Your task to perform on an android device: Search for a 3D printer on aliexpress. Image 0: 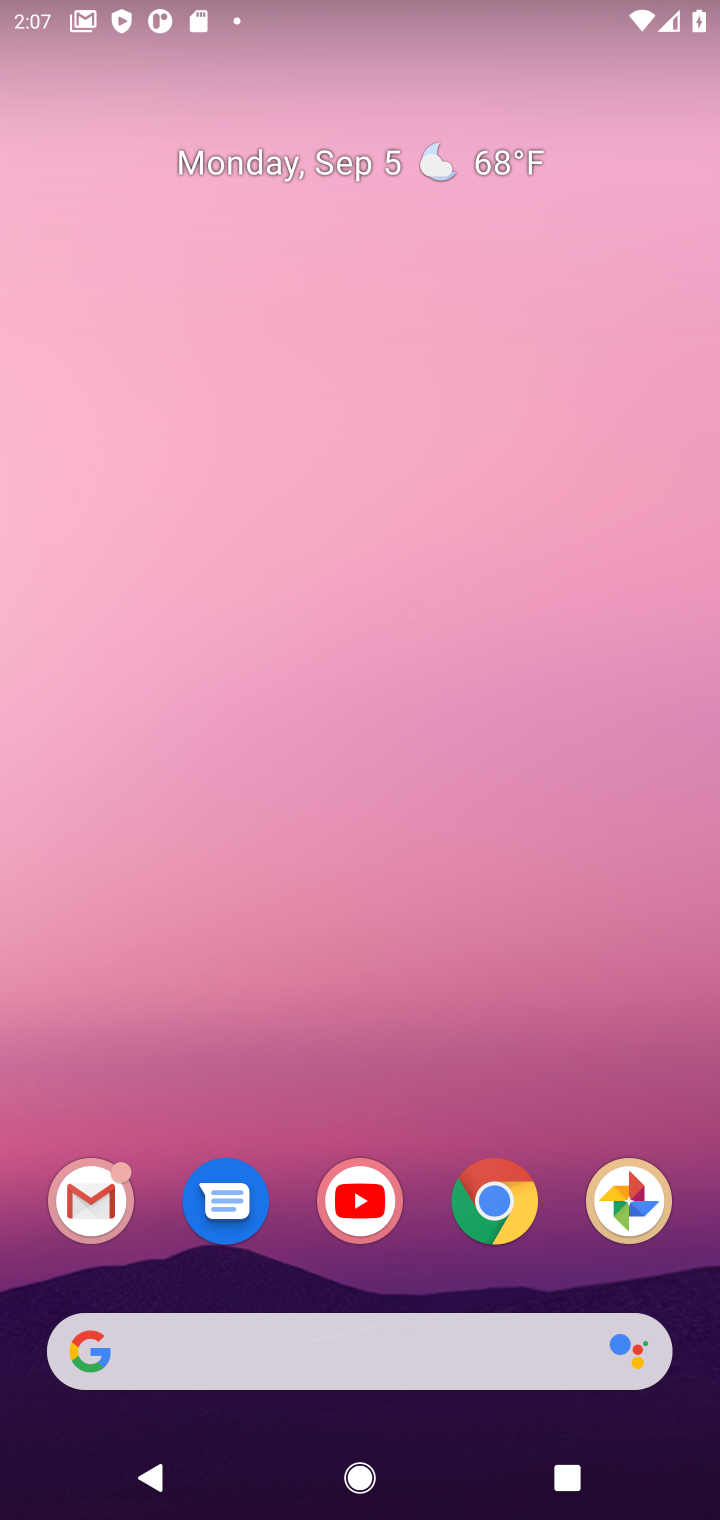
Step 0: click (485, 1199)
Your task to perform on an android device: Search for a 3D printer on aliexpress. Image 1: 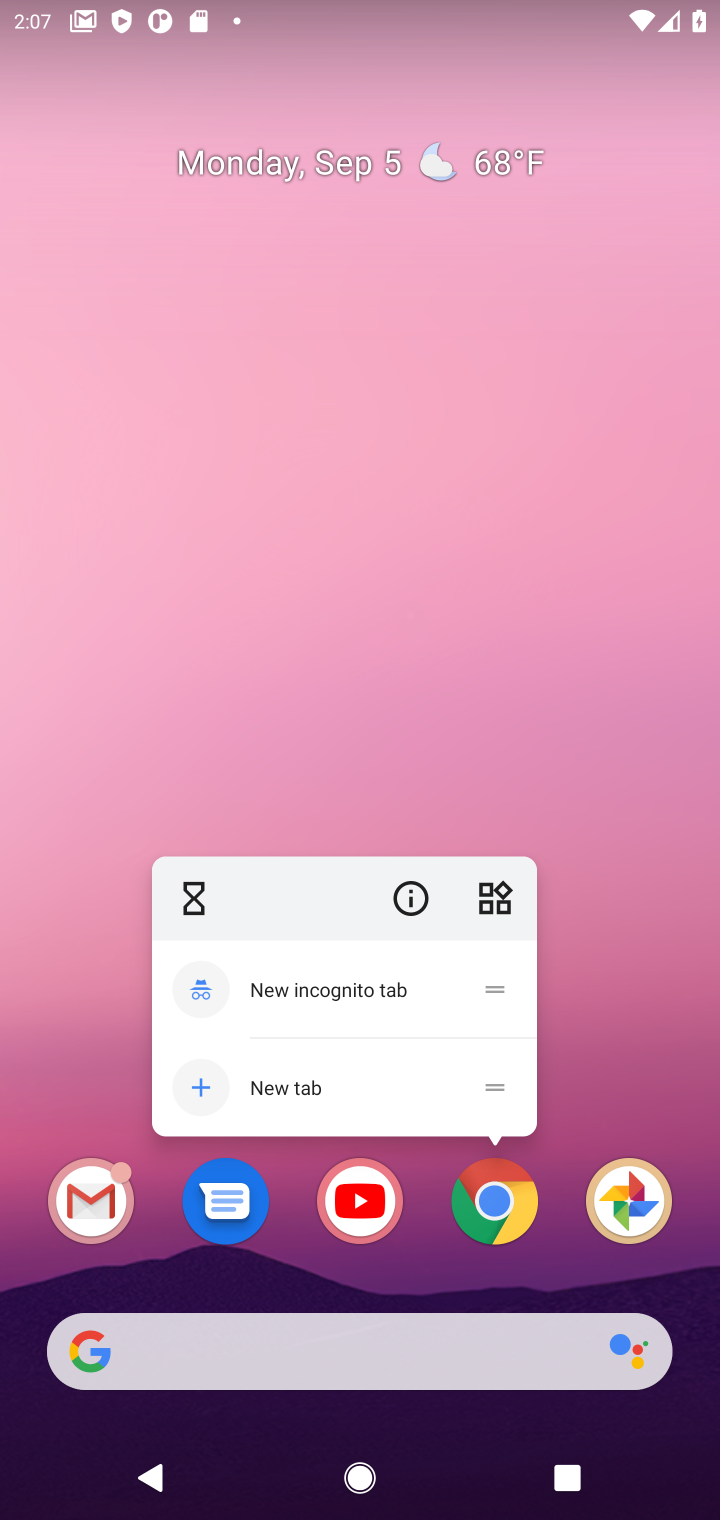
Step 1: click (485, 1202)
Your task to perform on an android device: Search for a 3D printer on aliexpress. Image 2: 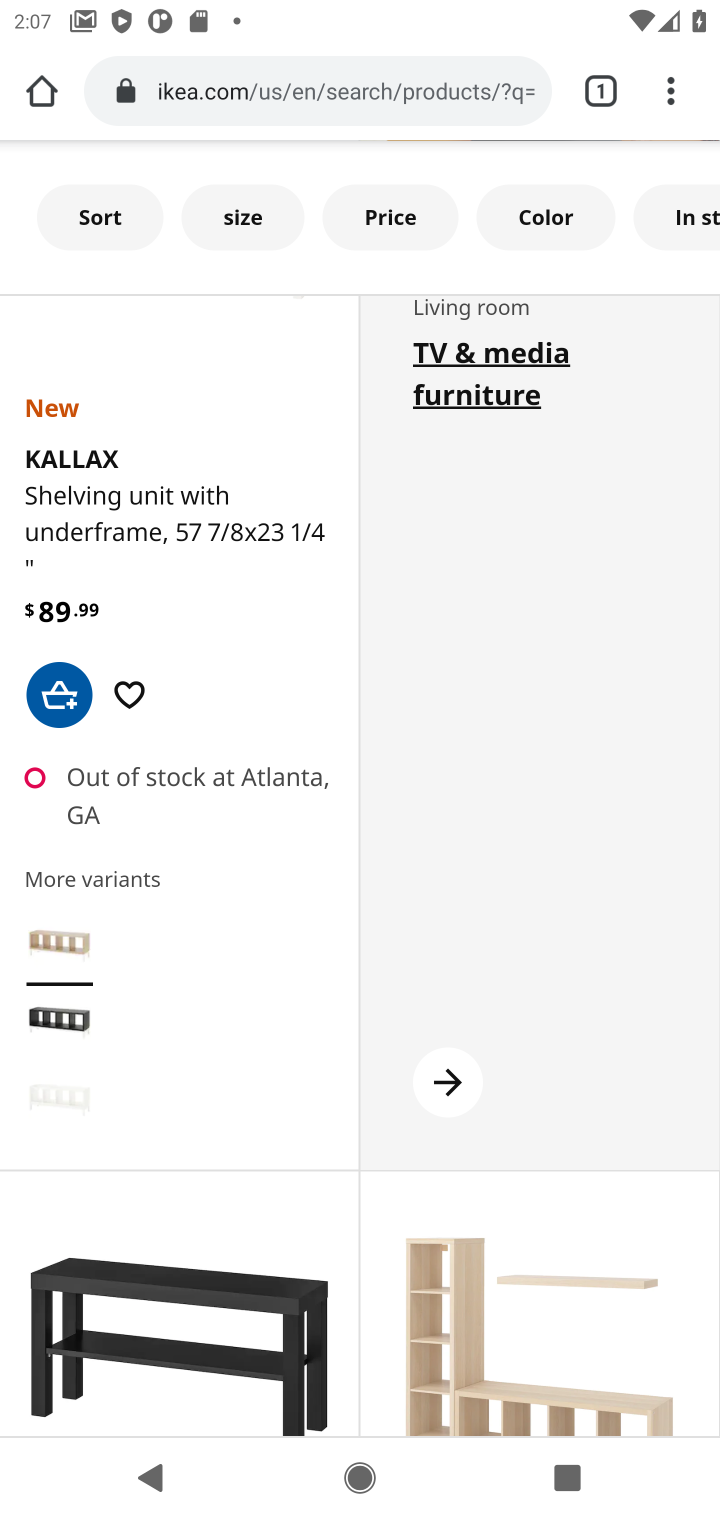
Step 2: click (419, 85)
Your task to perform on an android device: Search for a 3D printer on aliexpress. Image 3: 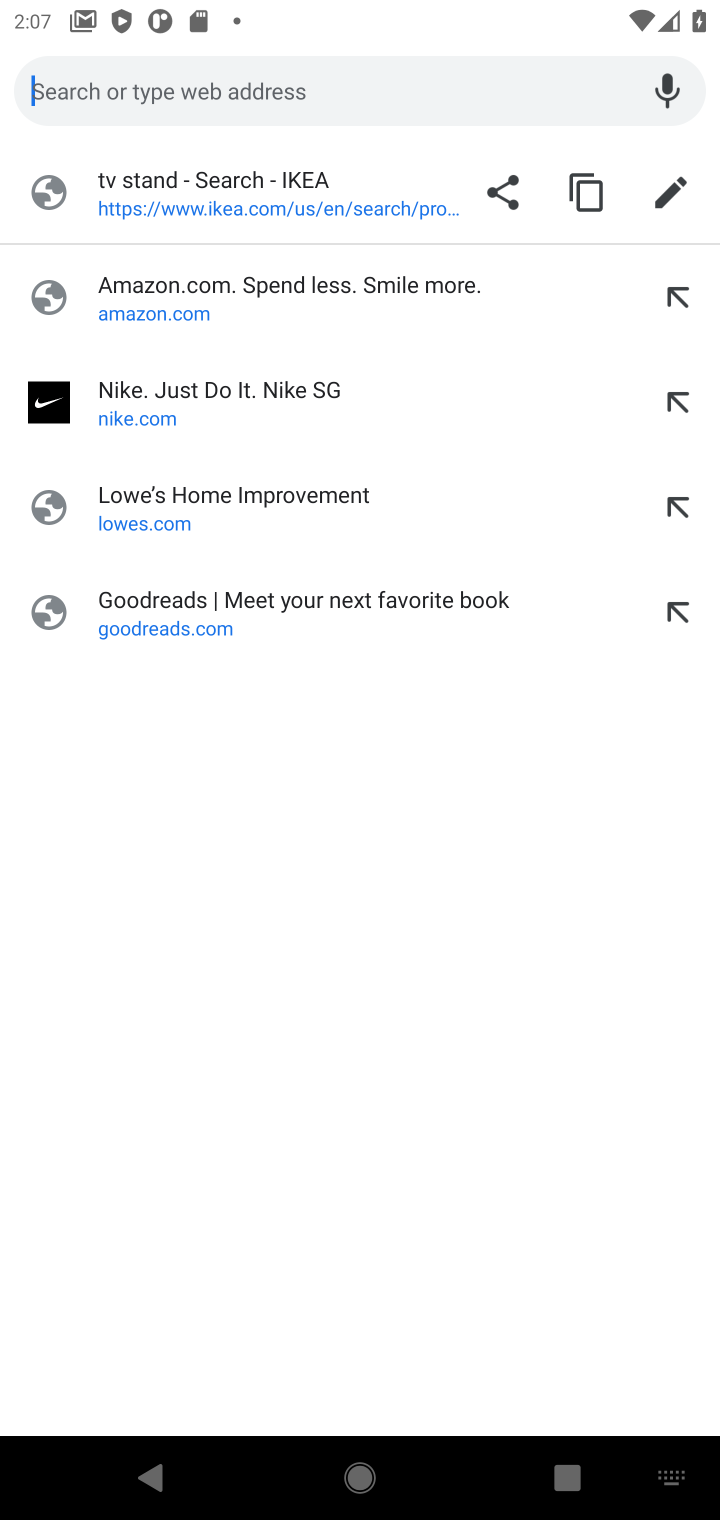
Step 3: click (229, 85)
Your task to perform on an android device: Search for a 3D printer on aliexpress. Image 4: 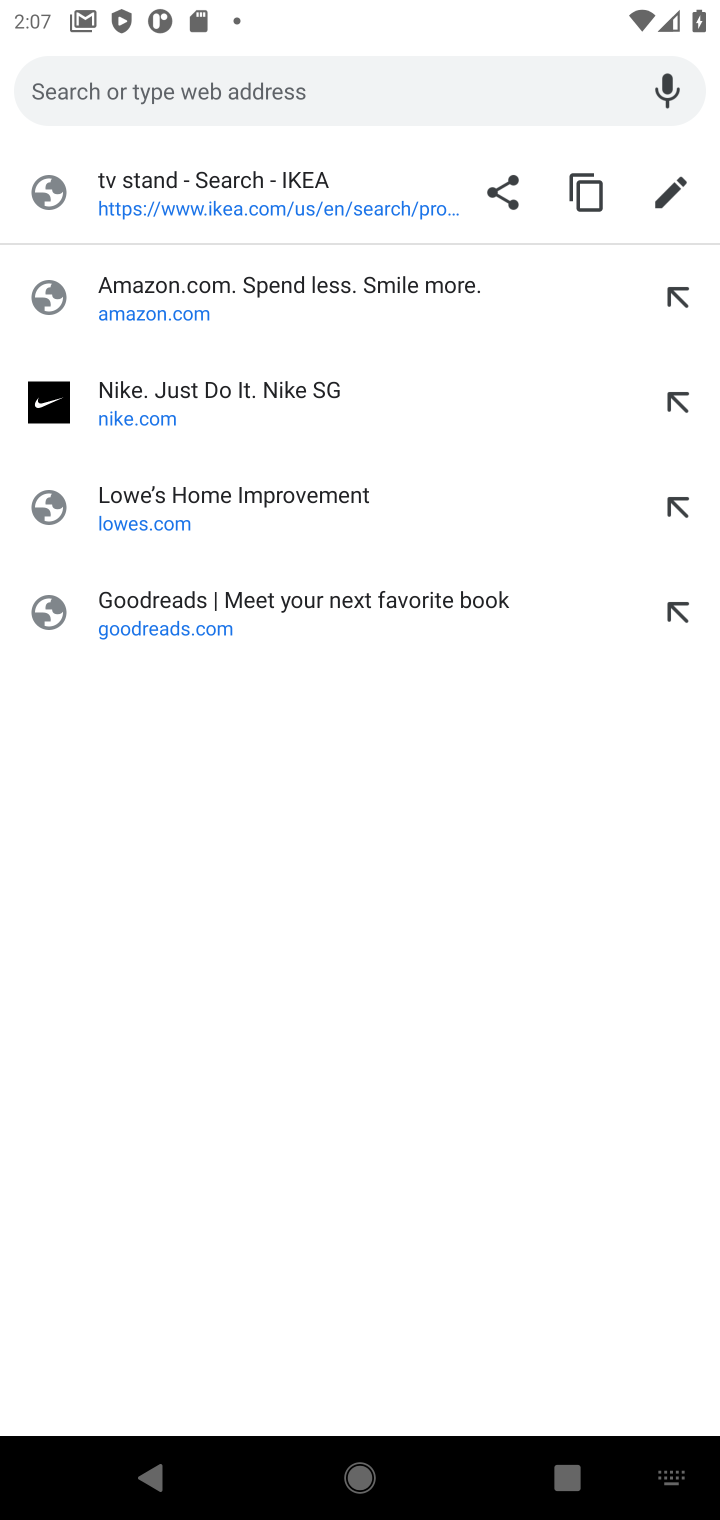
Step 4: press enter
Your task to perform on an android device: Search for a 3D printer on aliexpress. Image 5: 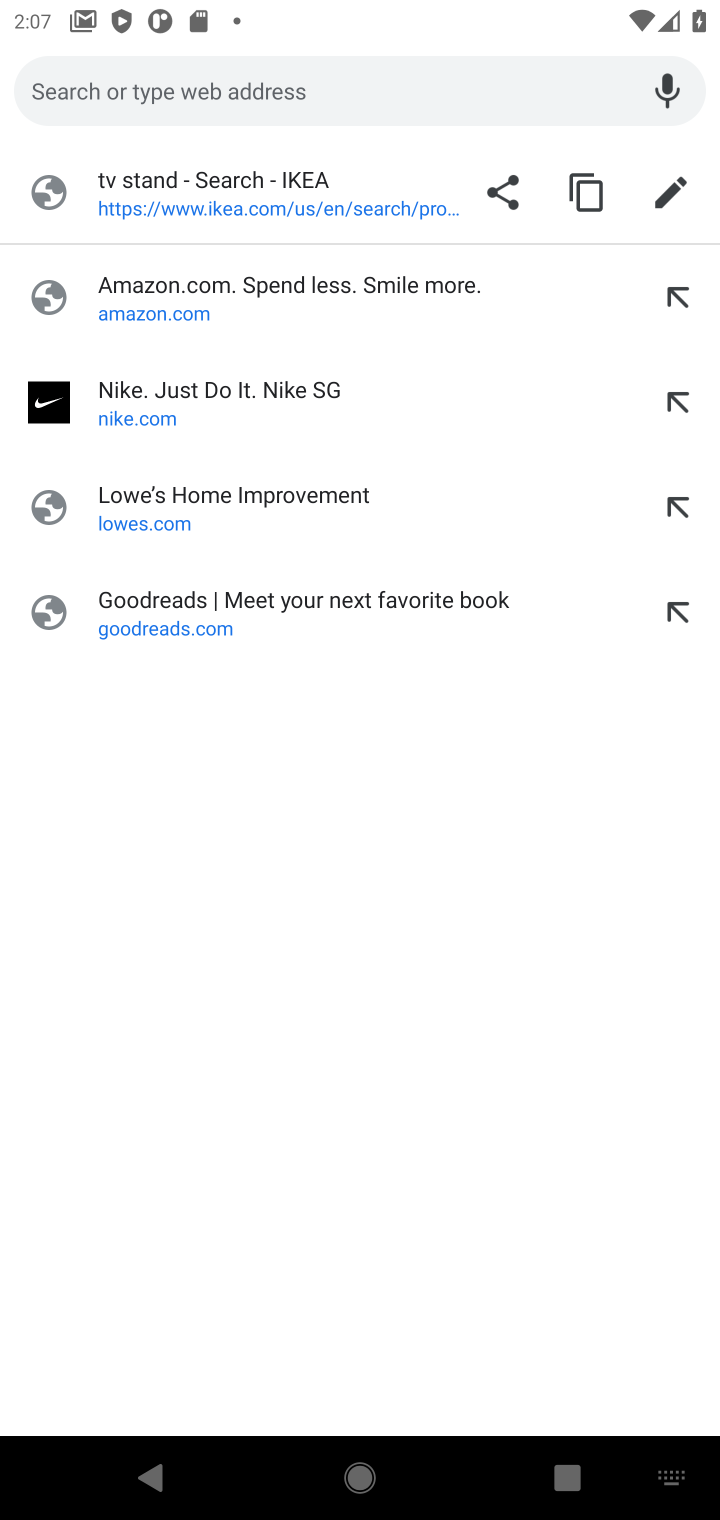
Step 5: type "aliexpress"
Your task to perform on an android device: Search for a 3D printer on aliexpress. Image 6: 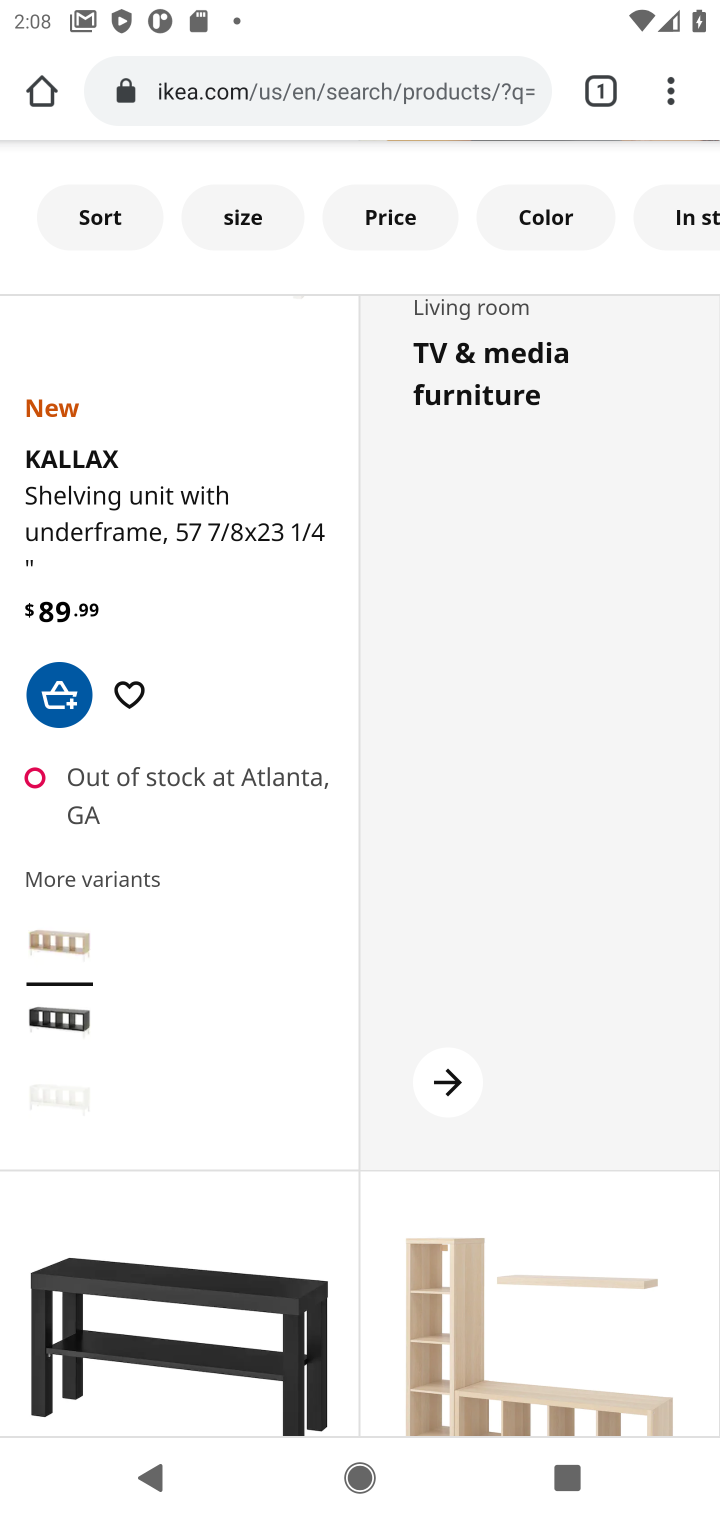
Step 6: click (403, 94)
Your task to perform on an android device: Search for a 3D printer on aliexpress. Image 7: 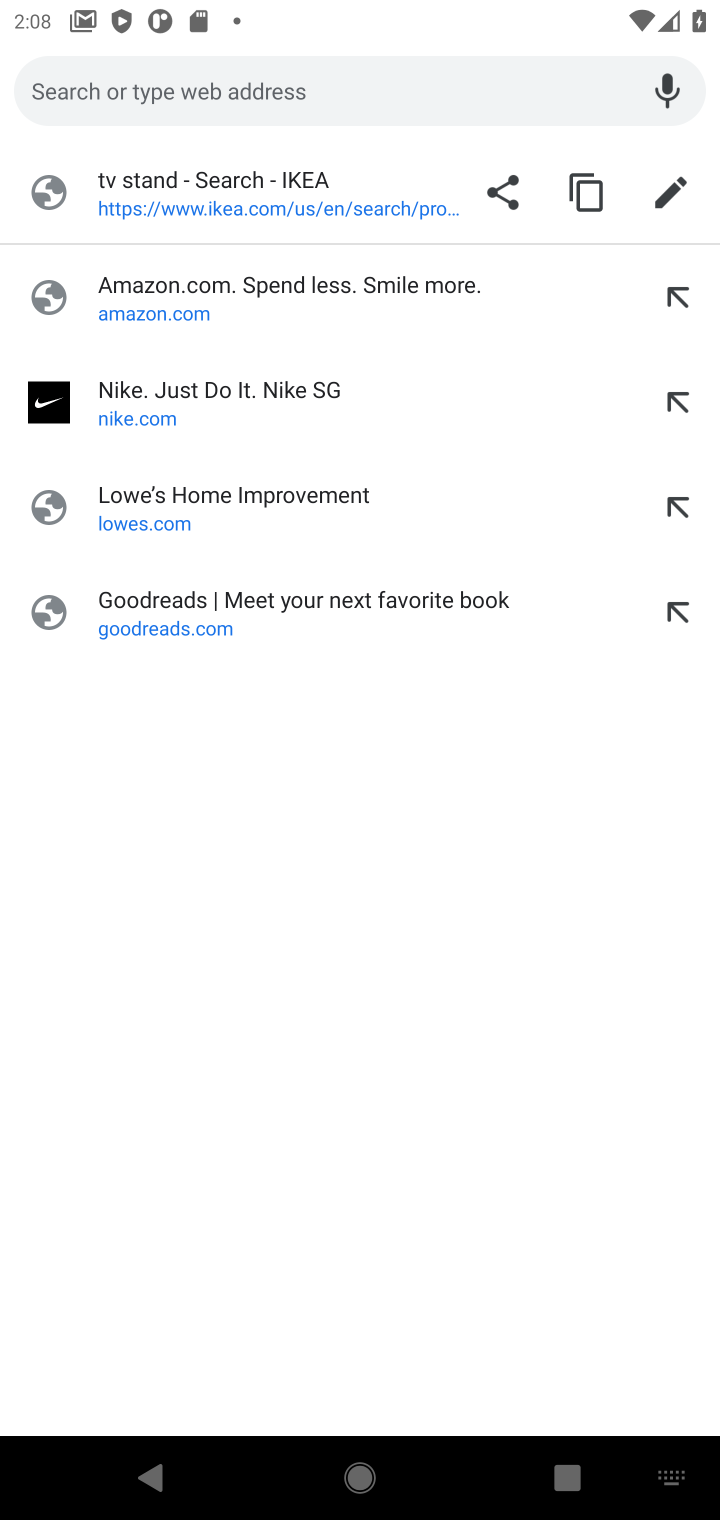
Step 7: type "aliexpress"
Your task to perform on an android device: Search for a 3D printer on aliexpress. Image 8: 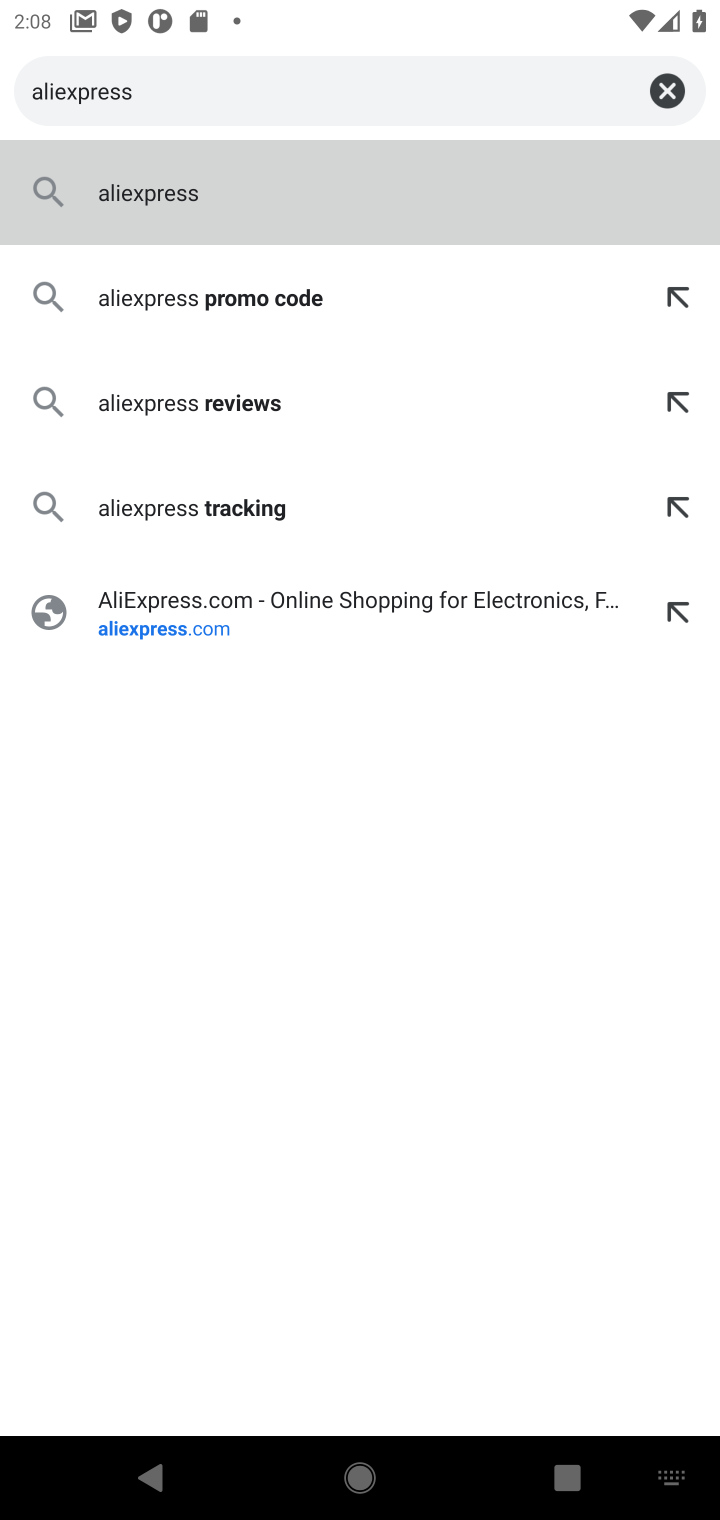
Step 8: press enter
Your task to perform on an android device: Search for a 3D printer on aliexpress. Image 9: 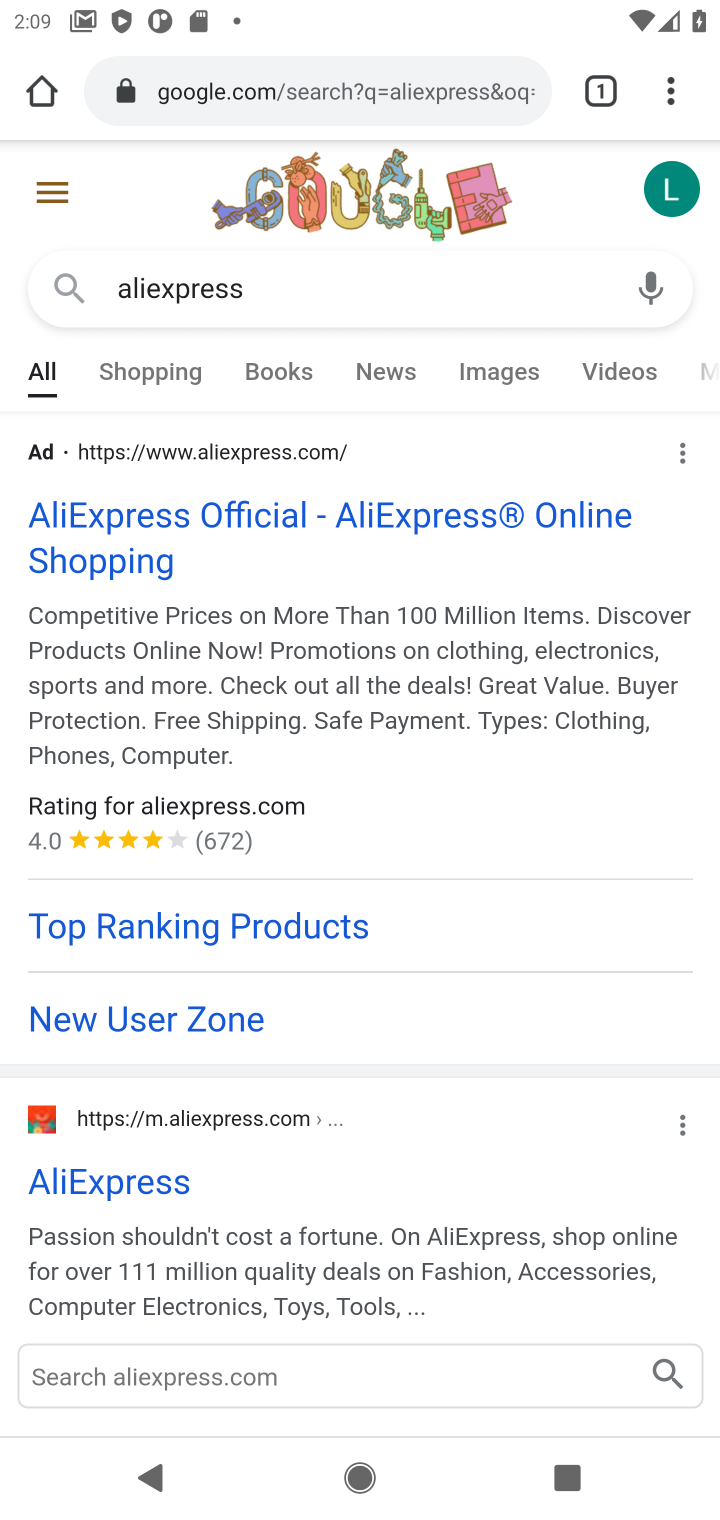
Step 9: click (139, 1187)
Your task to perform on an android device: Search for a 3D printer on aliexpress. Image 10: 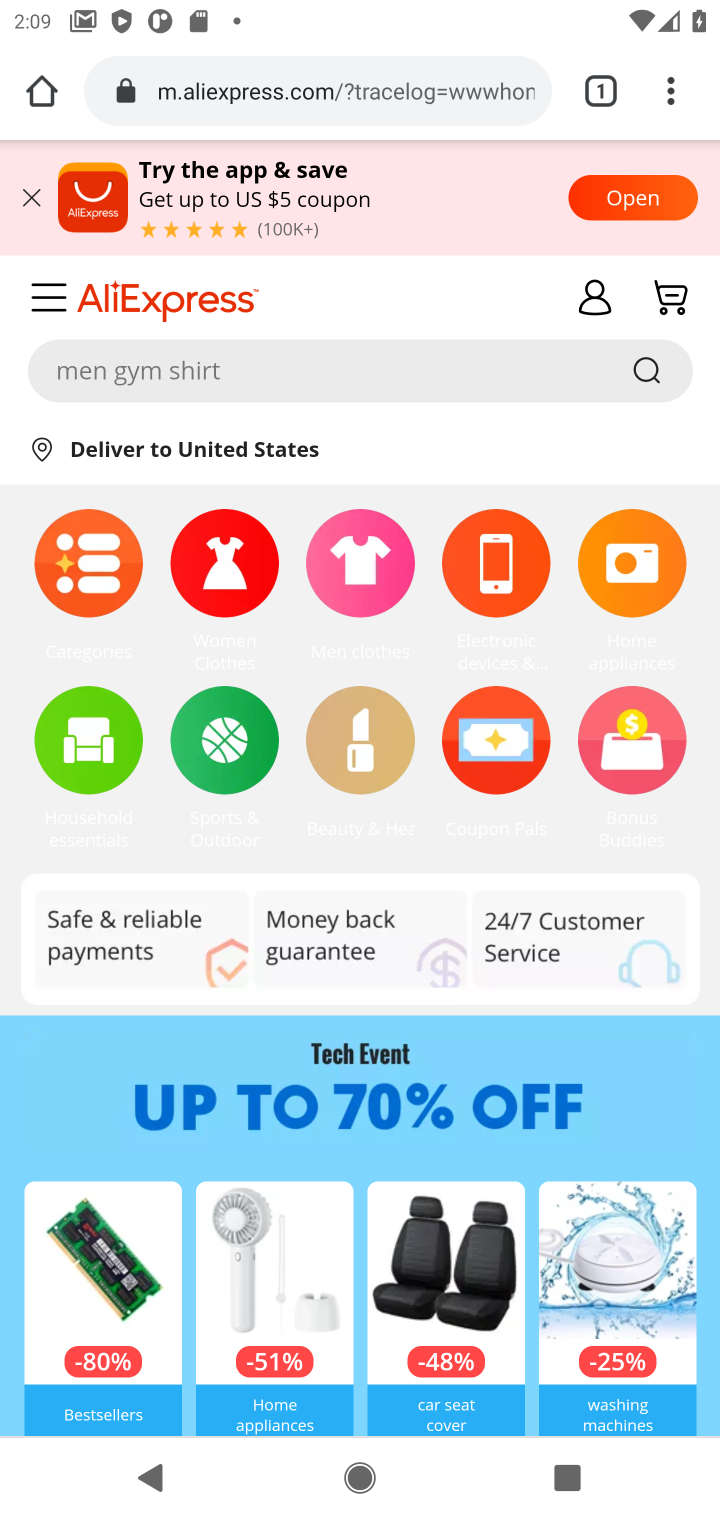
Step 10: click (184, 369)
Your task to perform on an android device: Search for a 3D printer on aliexpress. Image 11: 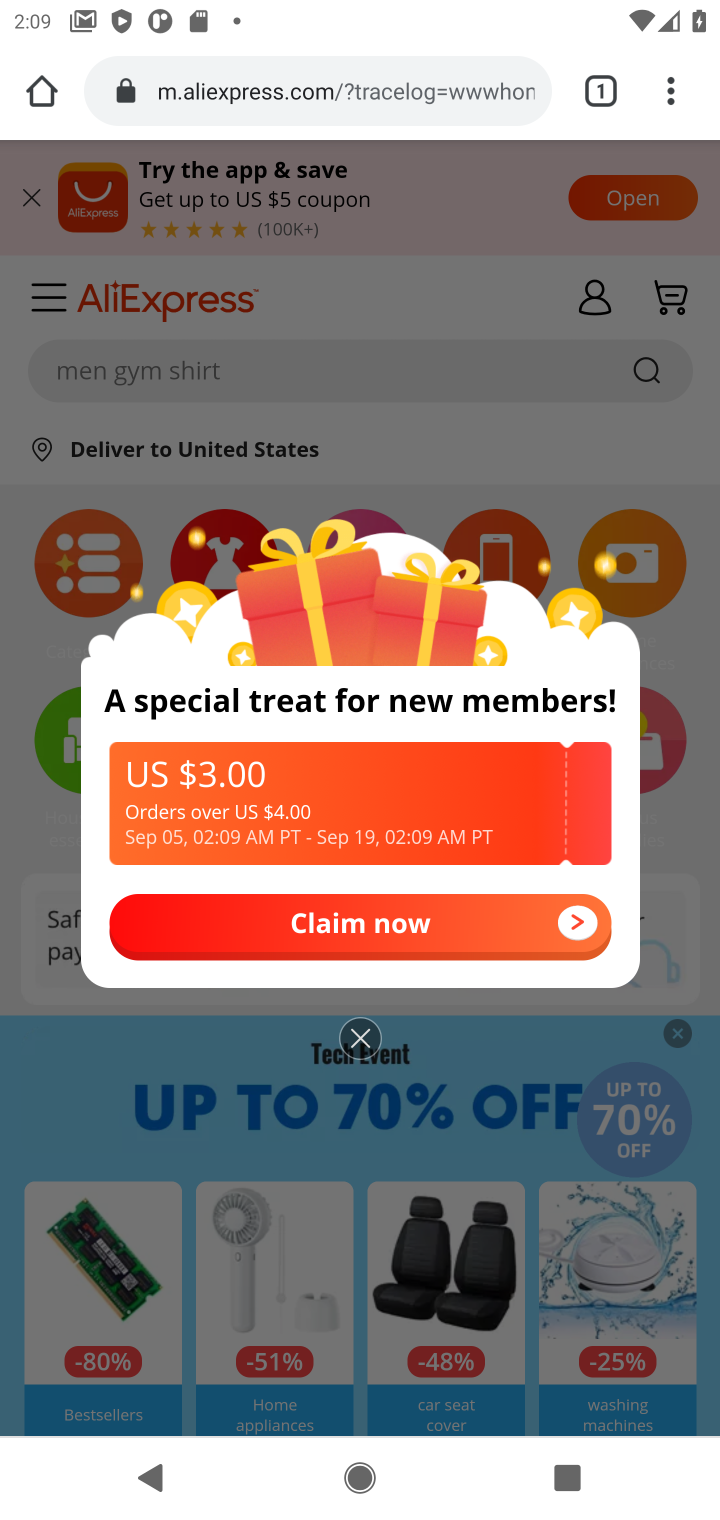
Step 11: click (358, 1046)
Your task to perform on an android device: Search for a 3D printer on aliexpress. Image 12: 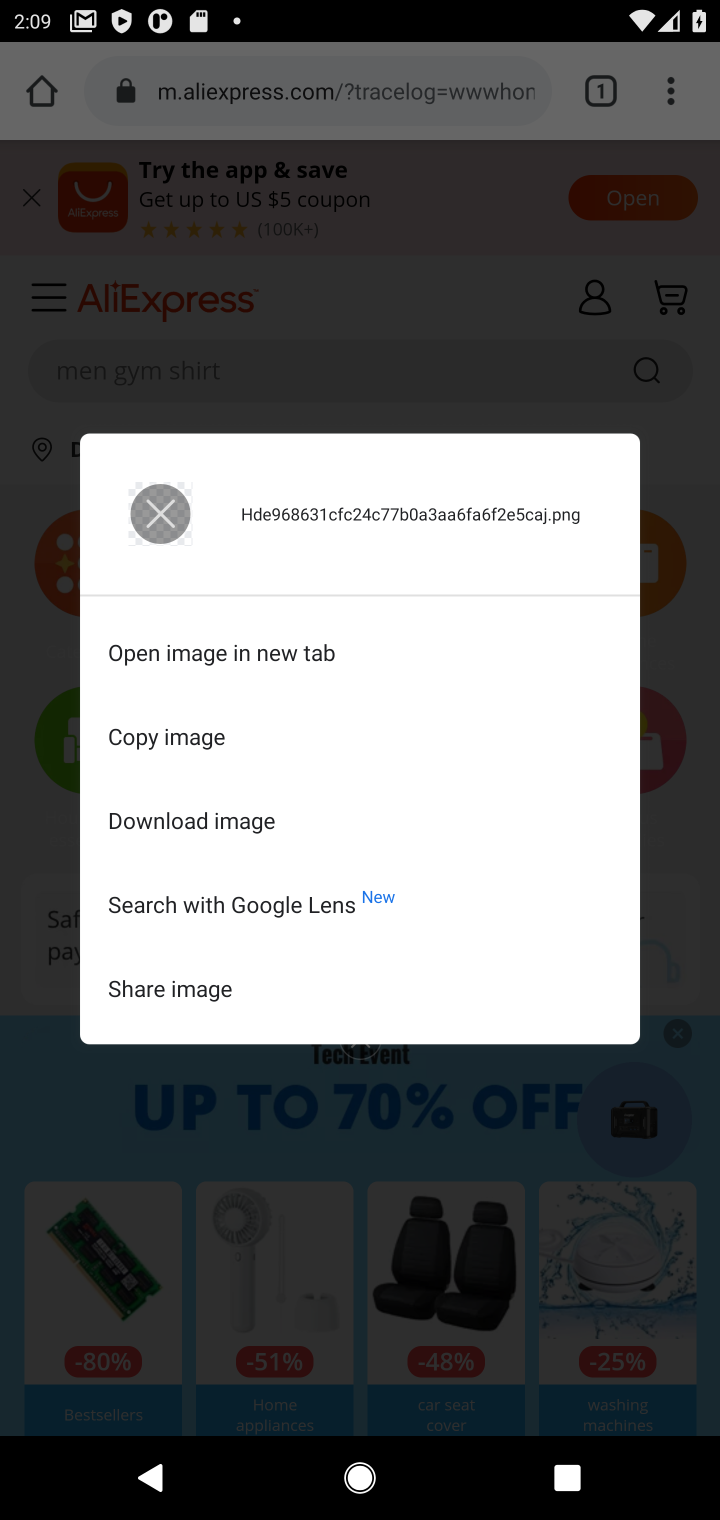
Step 12: click (595, 1126)
Your task to perform on an android device: Search for a 3D printer on aliexpress. Image 13: 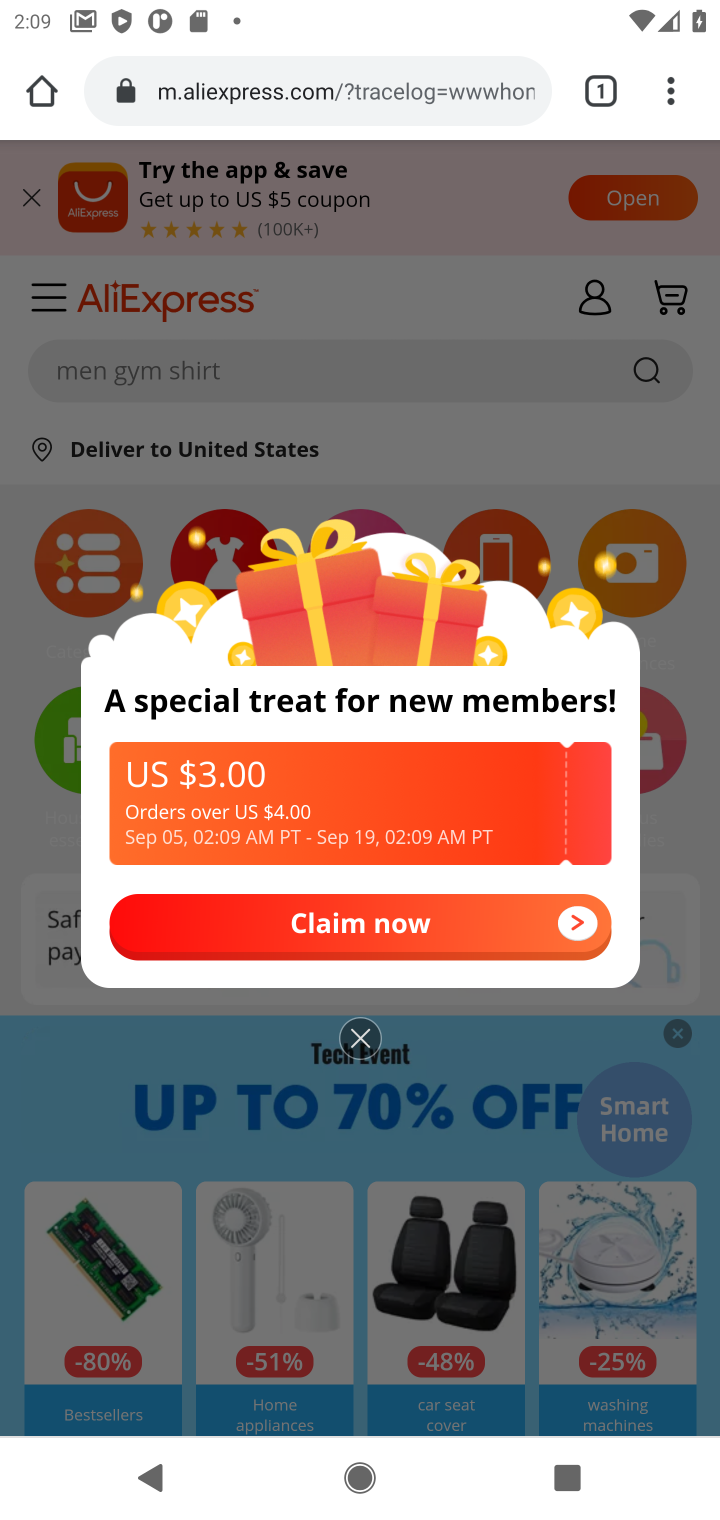
Step 13: click (362, 1041)
Your task to perform on an android device: Search for a 3D printer on aliexpress. Image 14: 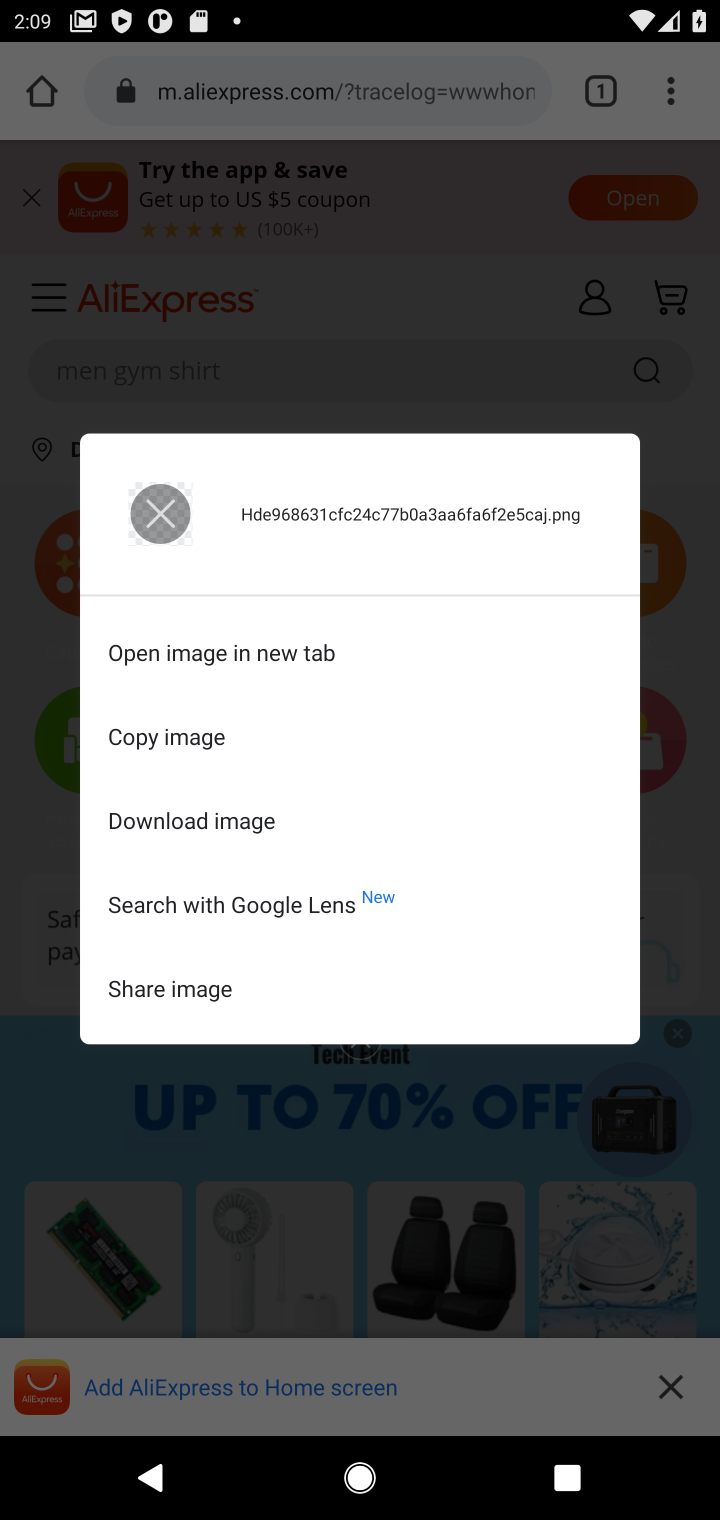
Step 14: click (684, 571)
Your task to perform on an android device: Search for a 3D printer on aliexpress. Image 15: 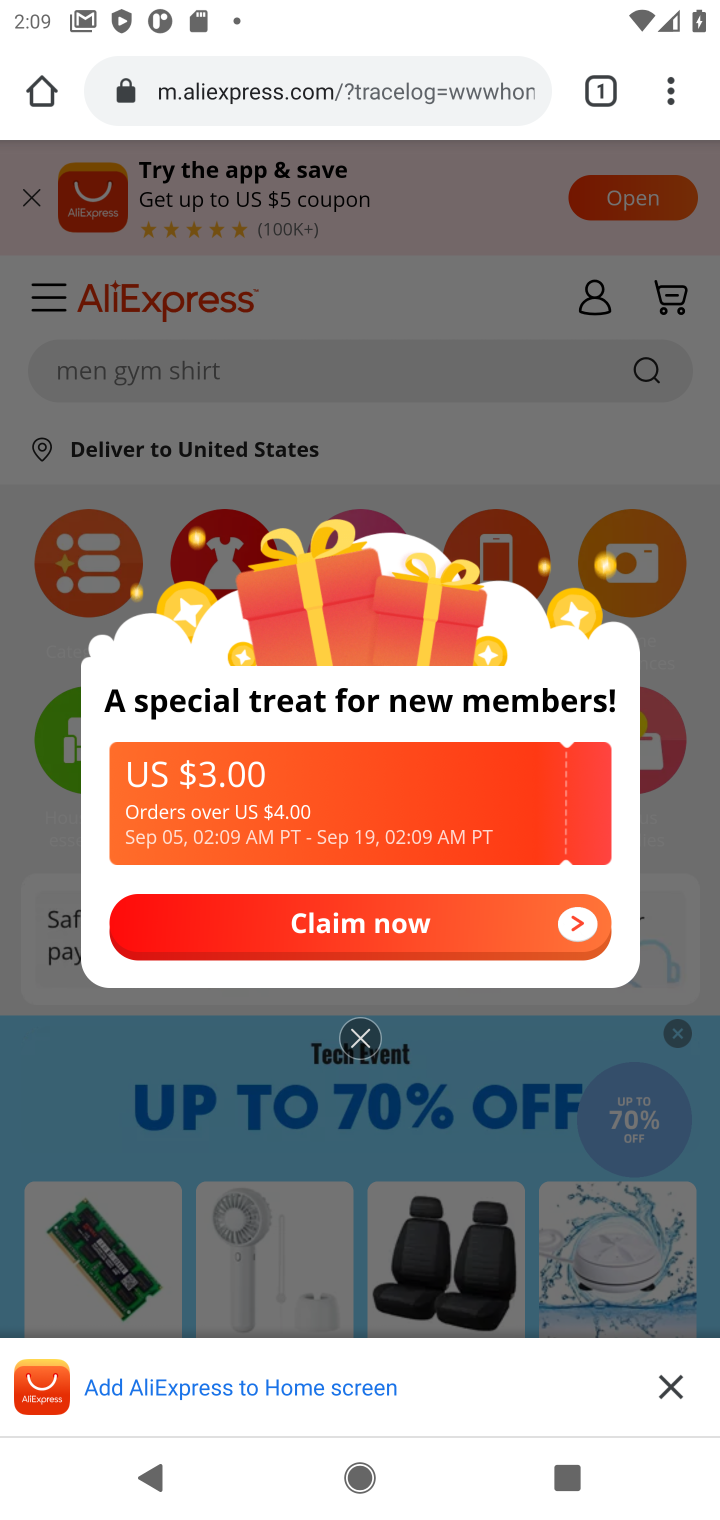
Step 15: click (358, 1039)
Your task to perform on an android device: Search for a 3D printer on aliexpress. Image 16: 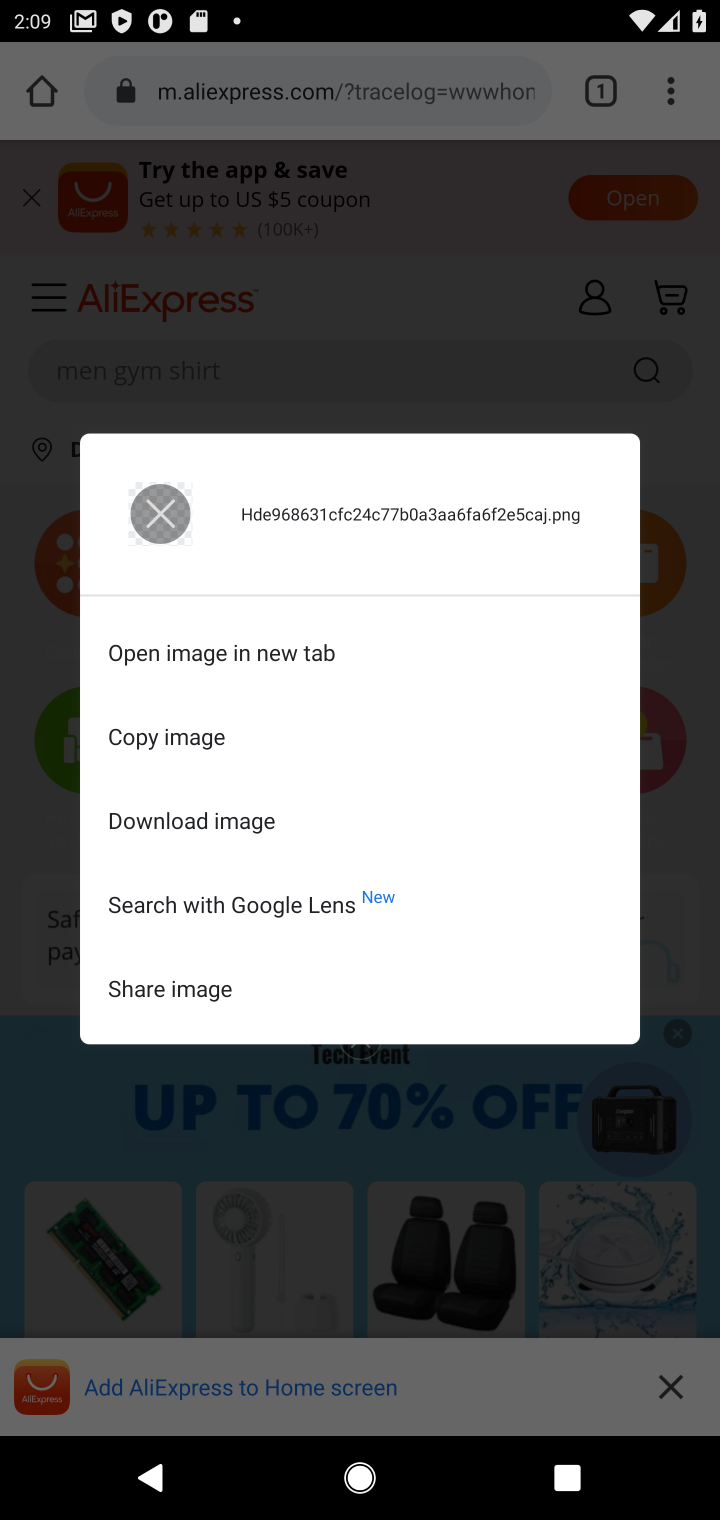
Step 16: click (461, 1119)
Your task to perform on an android device: Search for a 3D printer on aliexpress. Image 17: 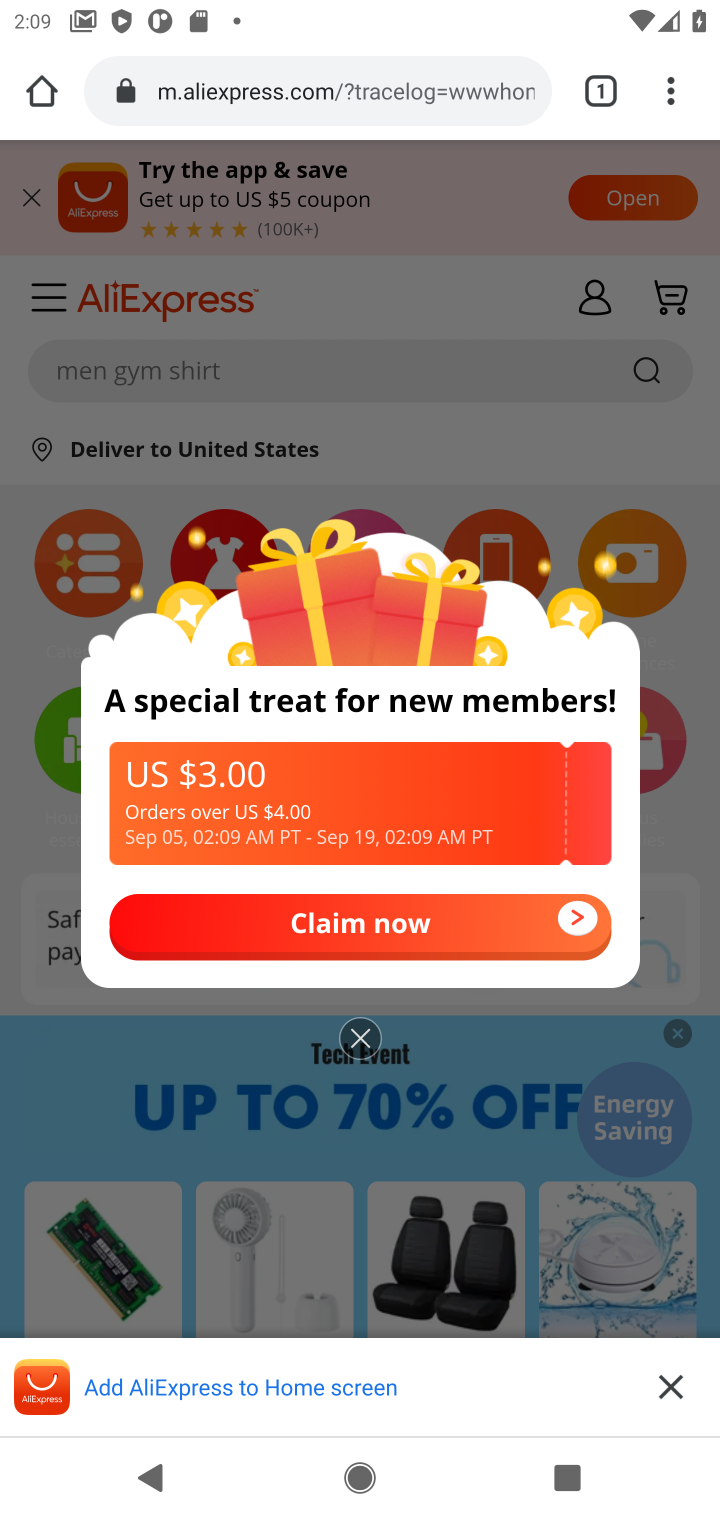
Step 17: click (354, 1043)
Your task to perform on an android device: Search for a 3D printer on aliexpress. Image 18: 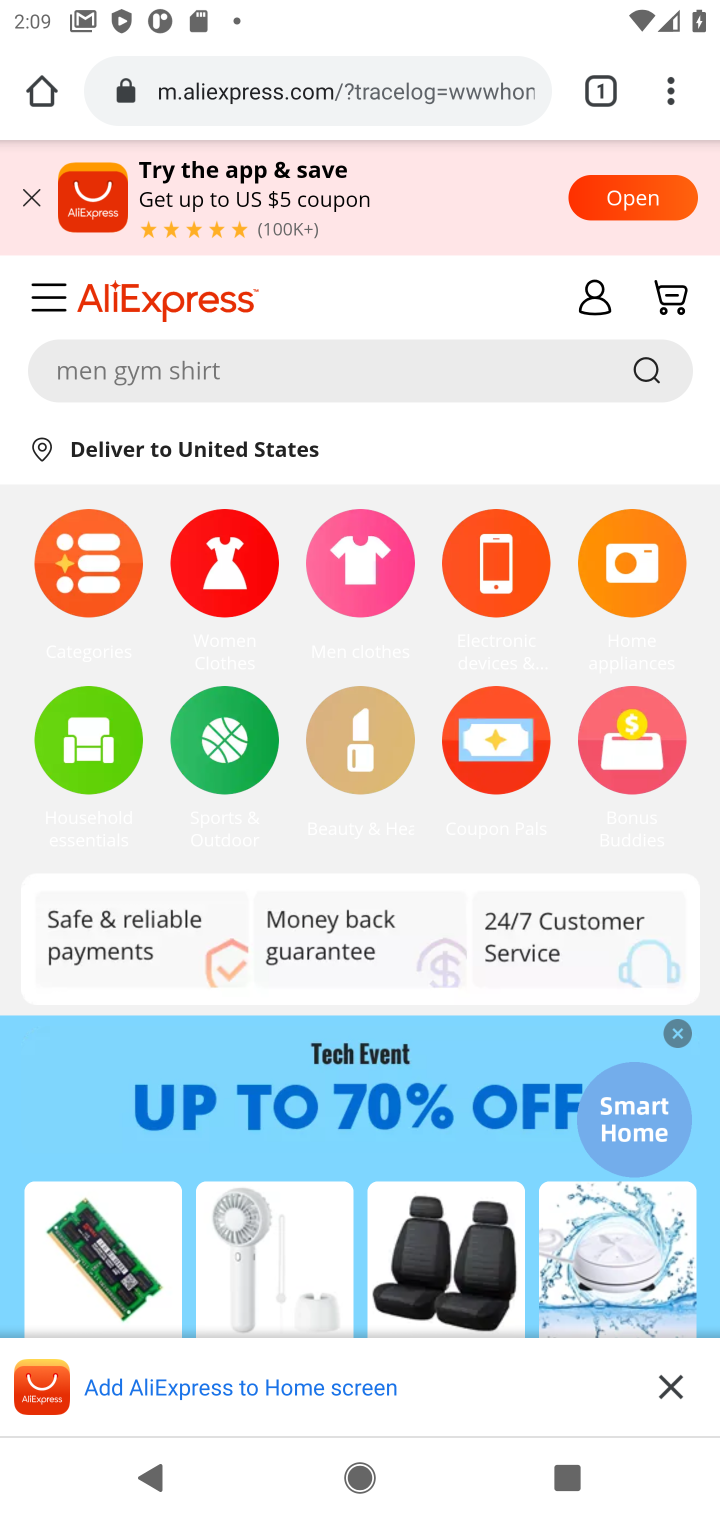
Step 18: click (109, 373)
Your task to perform on an android device: Search for a 3D printer on aliexpress. Image 19: 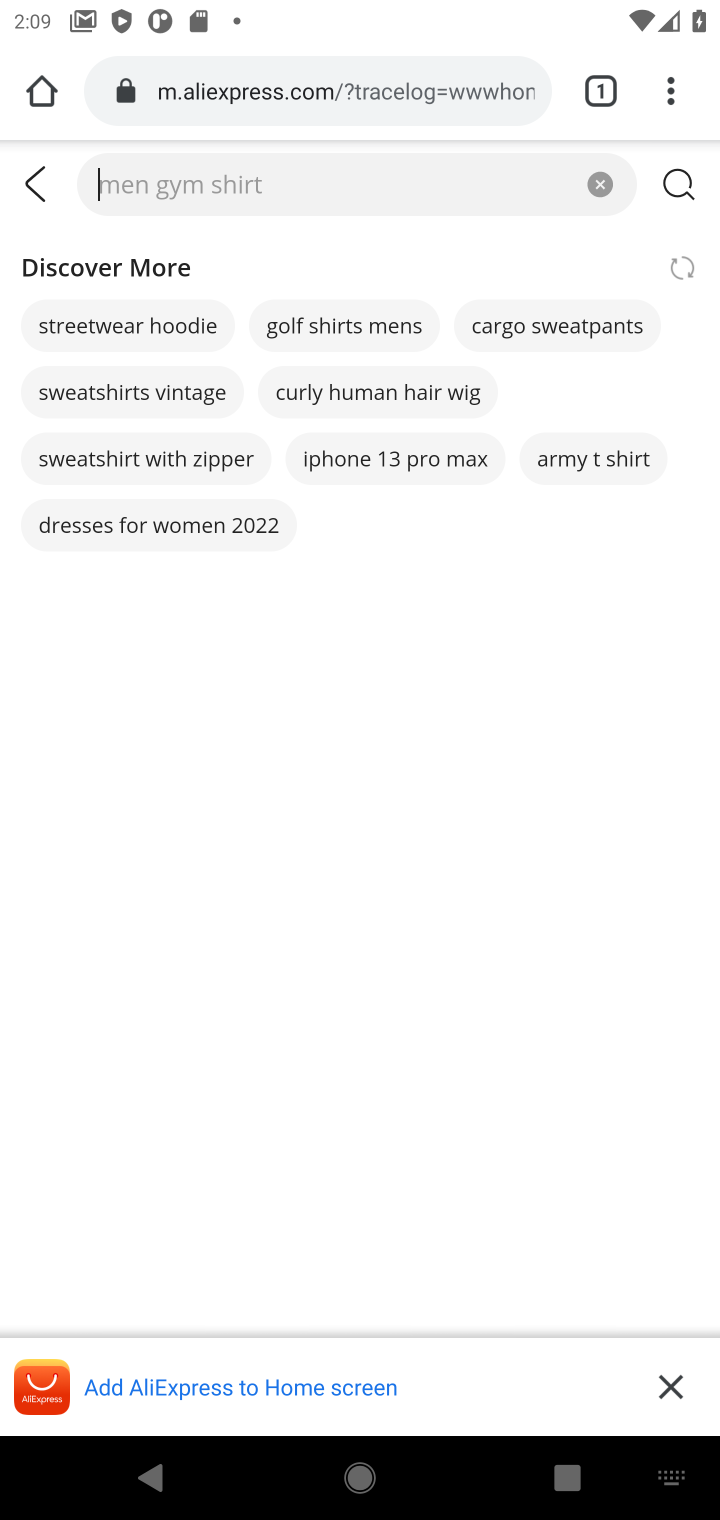
Step 19: click (227, 165)
Your task to perform on an android device: Search for a 3D printer on aliexpress. Image 20: 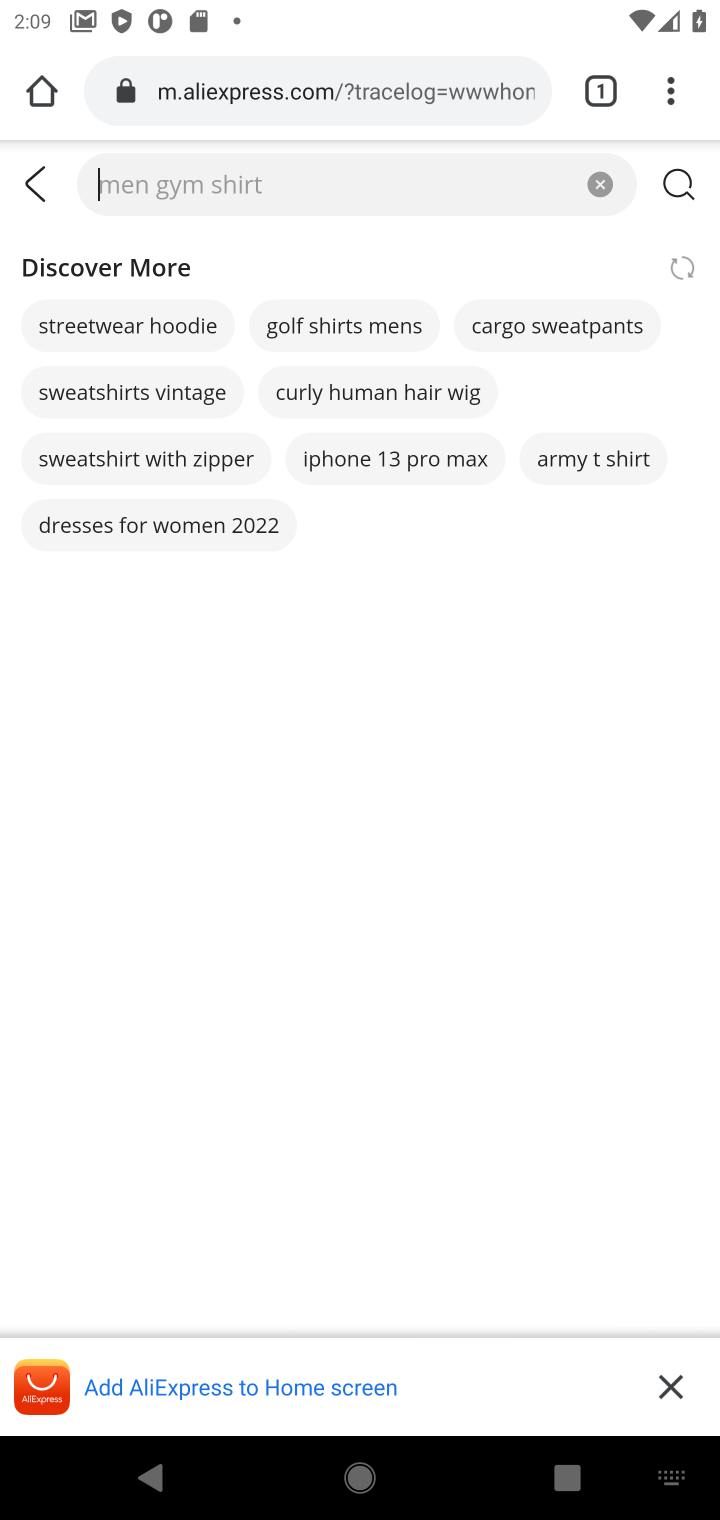
Step 20: click (98, 143)
Your task to perform on an android device: Search for a 3D printer on aliexpress. Image 21: 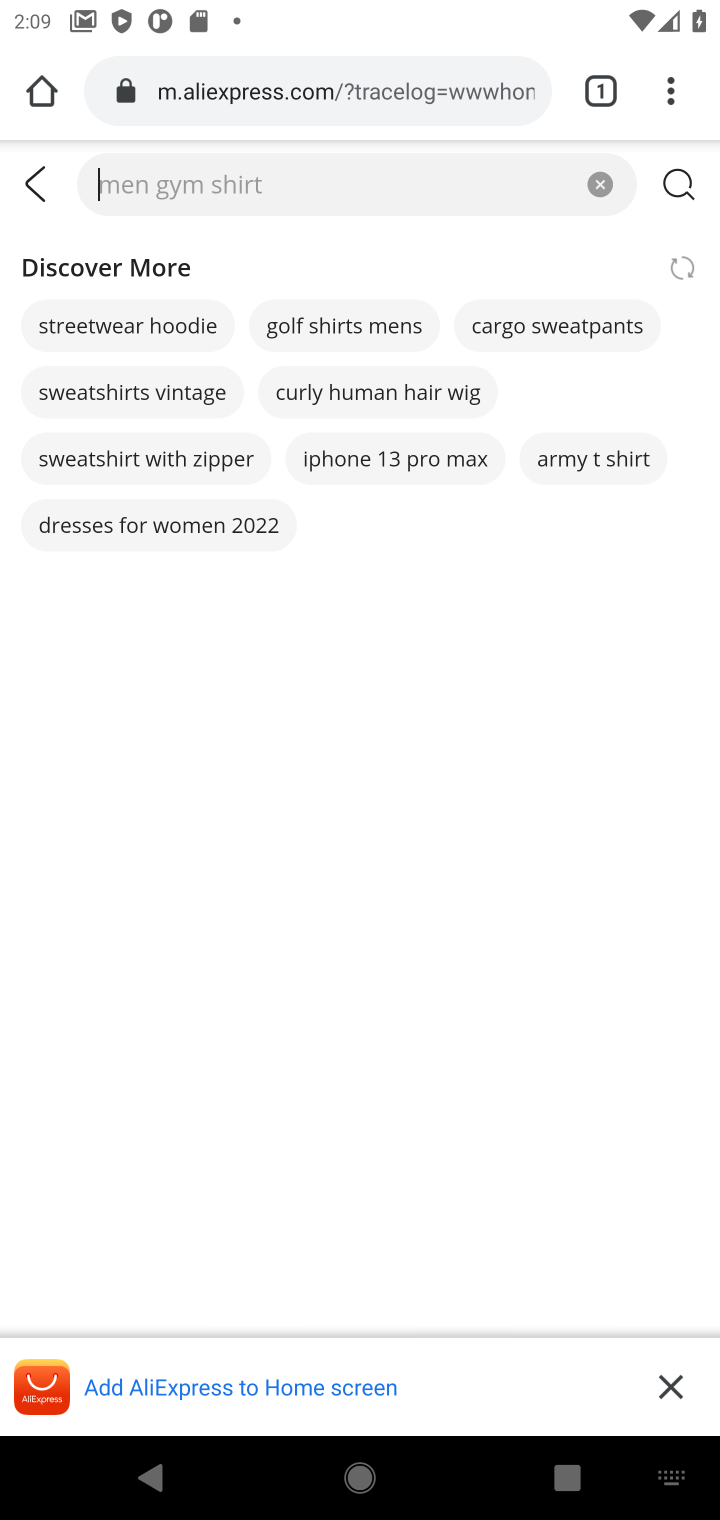
Step 21: type "3D printer"
Your task to perform on an android device: Search for a 3D printer on aliexpress. Image 22: 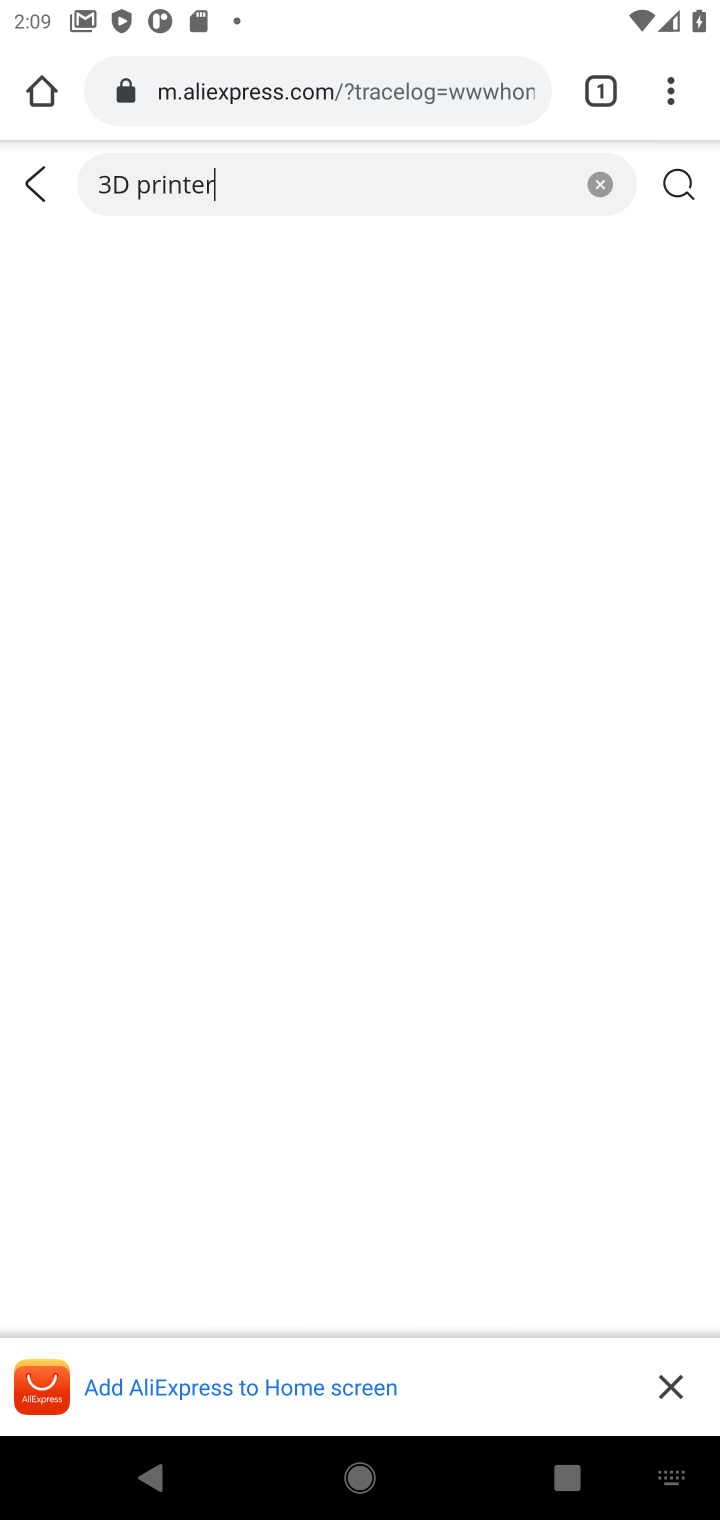
Step 22: press enter
Your task to perform on an android device: Search for a 3D printer on aliexpress. Image 23: 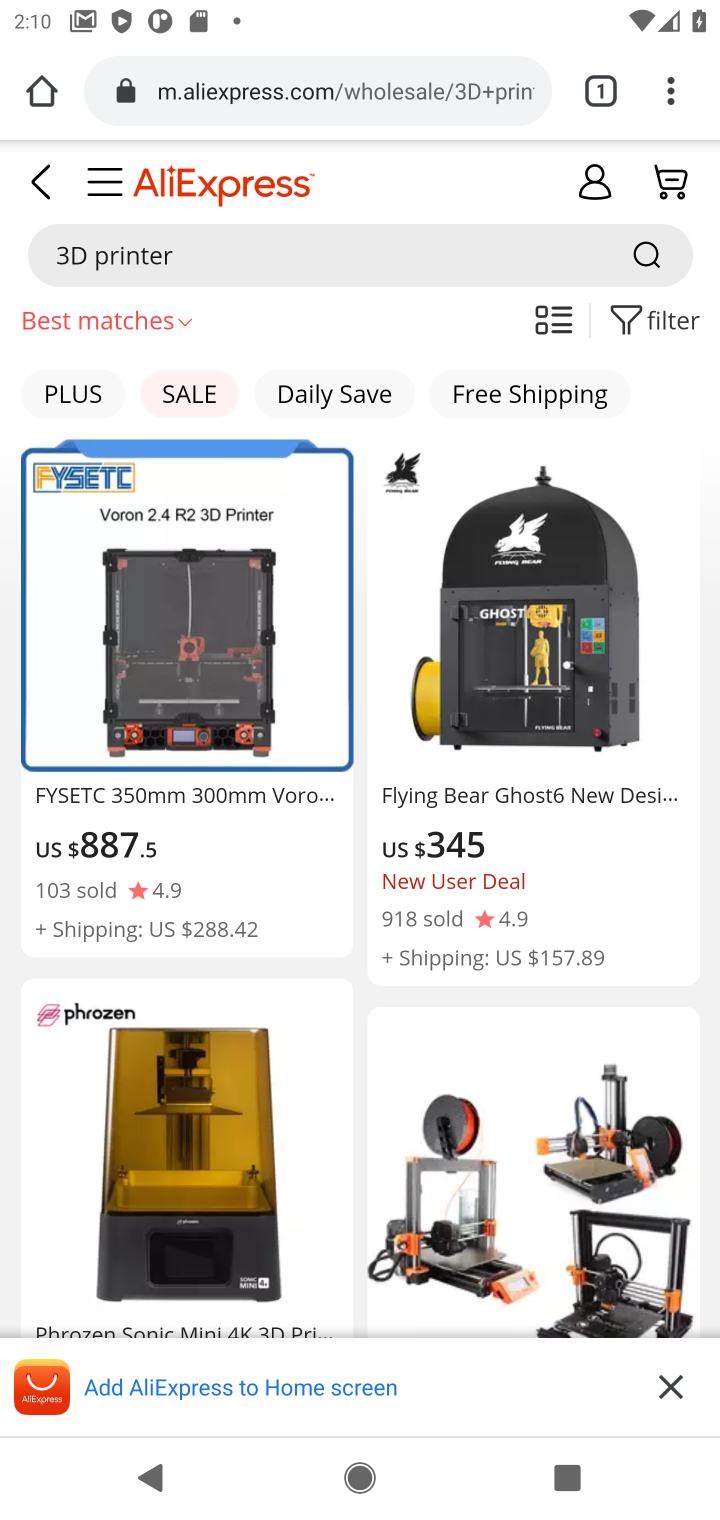
Step 23: task complete